Your task to perform on an android device: turn off priority inbox in the gmail app Image 0: 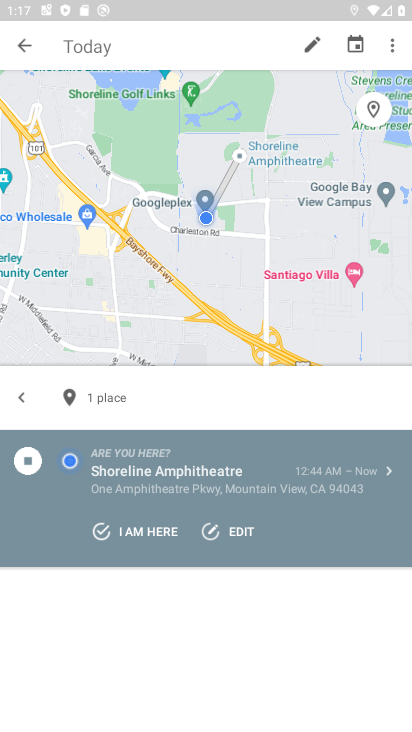
Step 0: press home button
Your task to perform on an android device: turn off priority inbox in the gmail app Image 1: 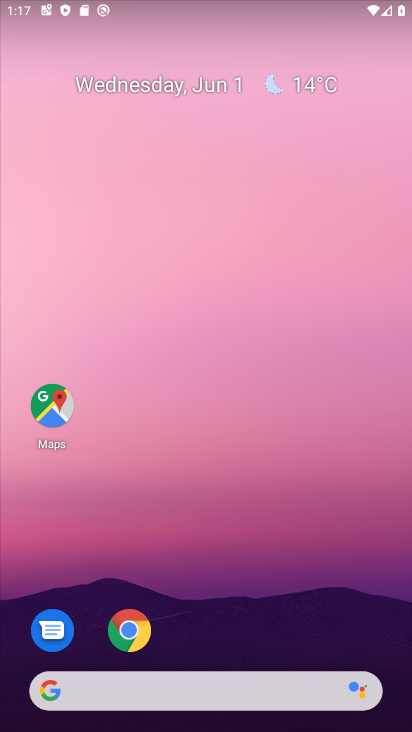
Step 1: drag from (222, 639) to (234, 195)
Your task to perform on an android device: turn off priority inbox in the gmail app Image 2: 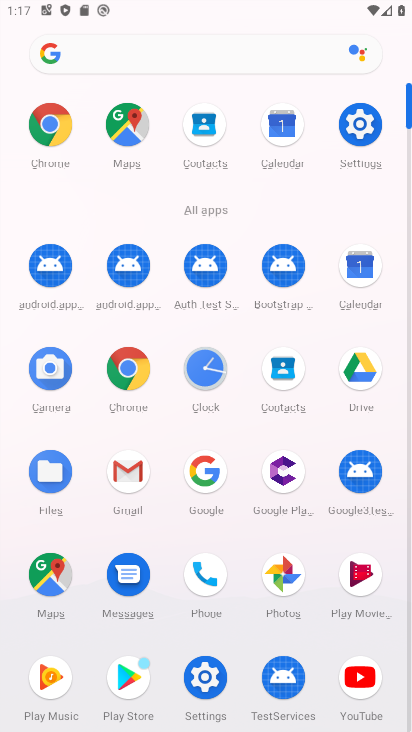
Step 2: click (234, 27)
Your task to perform on an android device: turn off priority inbox in the gmail app Image 3: 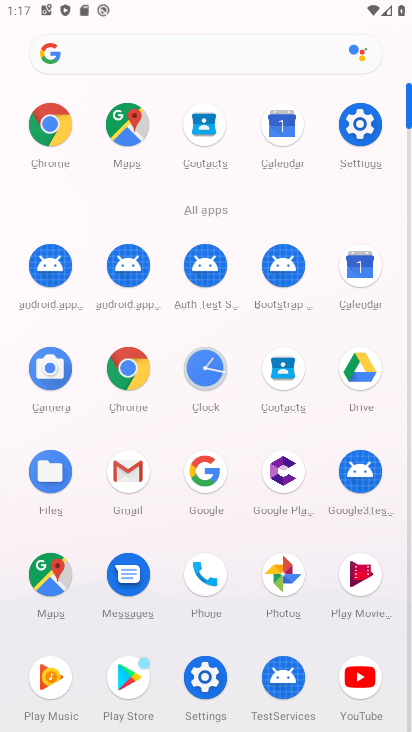
Step 3: click (125, 463)
Your task to perform on an android device: turn off priority inbox in the gmail app Image 4: 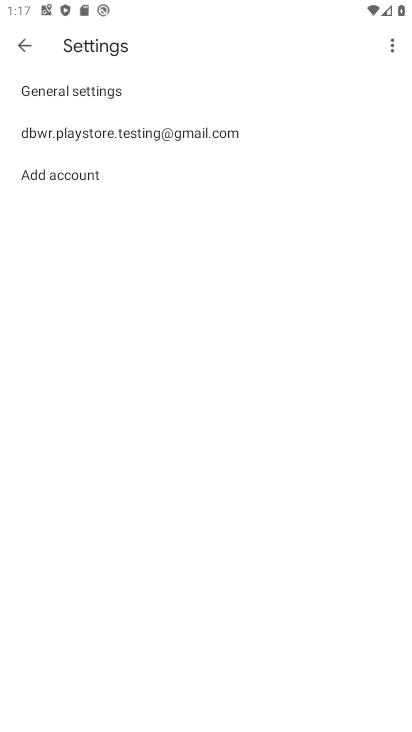
Step 4: click (247, 129)
Your task to perform on an android device: turn off priority inbox in the gmail app Image 5: 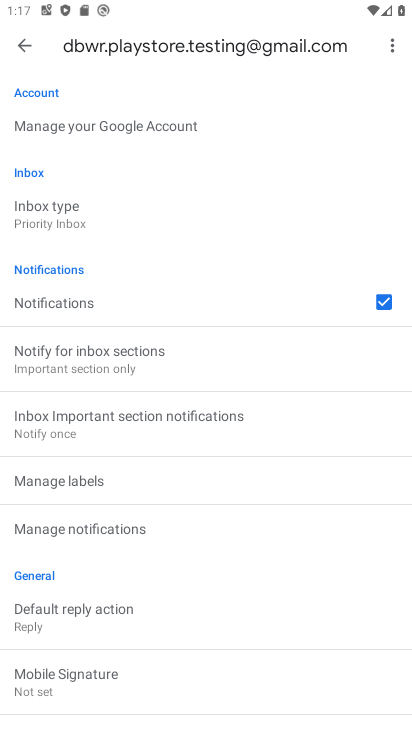
Step 5: click (99, 220)
Your task to perform on an android device: turn off priority inbox in the gmail app Image 6: 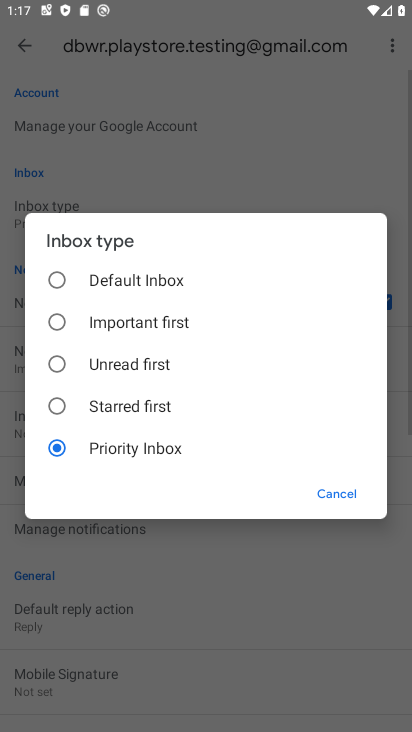
Step 6: click (61, 273)
Your task to perform on an android device: turn off priority inbox in the gmail app Image 7: 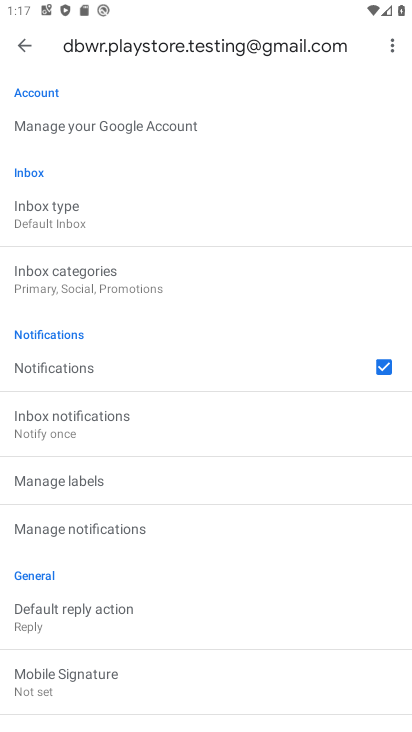
Step 7: task complete